Your task to perform on an android device: Go to Android settings Image 0: 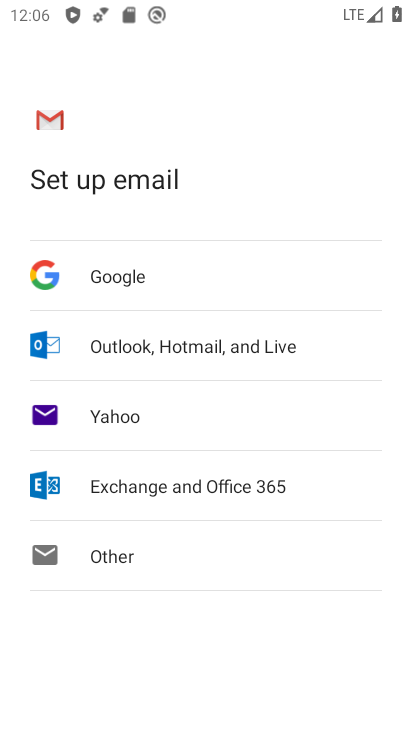
Step 0: drag from (198, 547) to (271, 114)
Your task to perform on an android device: Go to Android settings Image 1: 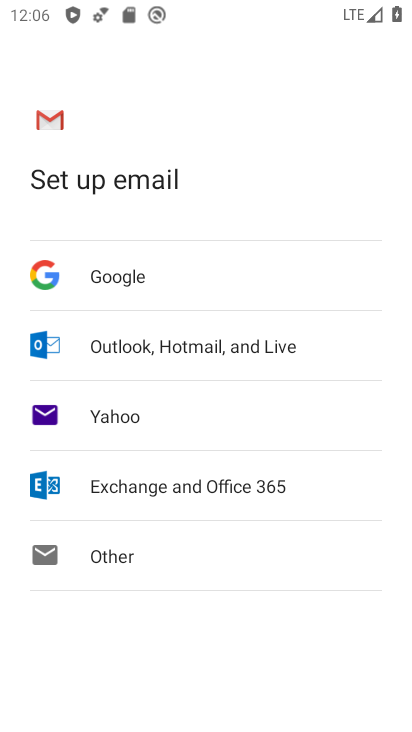
Step 1: press back button
Your task to perform on an android device: Go to Android settings Image 2: 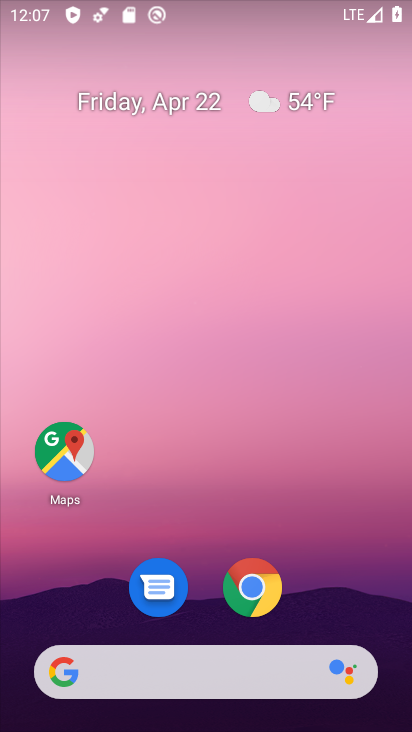
Step 2: drag from (204, 584) to (258, 188)
Your task to perform on an android device: Go to Android settings Image 3: 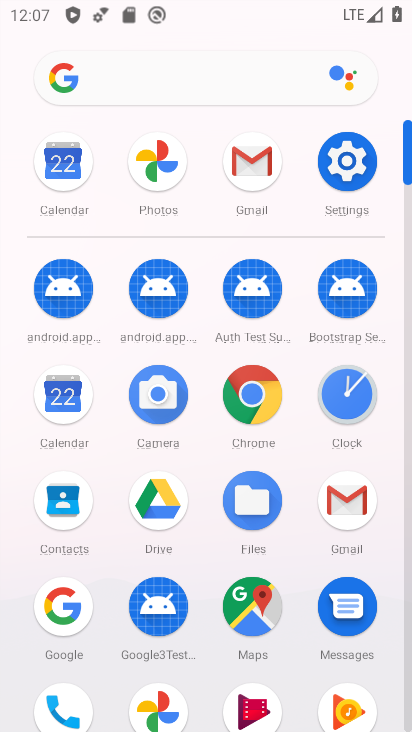
Step 3: click (343, 155)
Your task to perform on an android device: Go to Android settings Image 4: 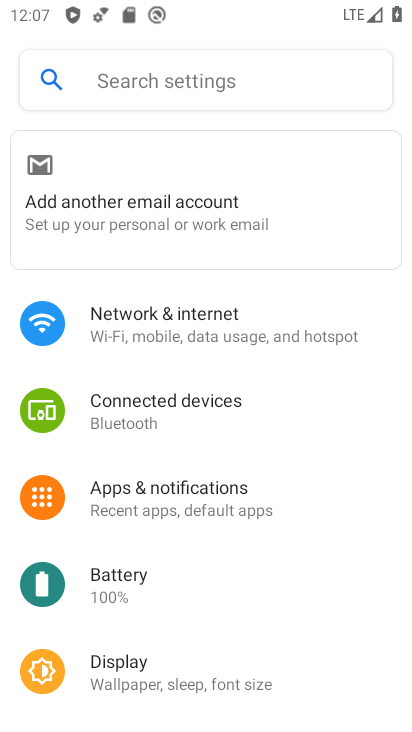
Step 4: drag from (182, 565) to (263, 108)
Your task to perform on an android device: Go to Android settings Image 5: 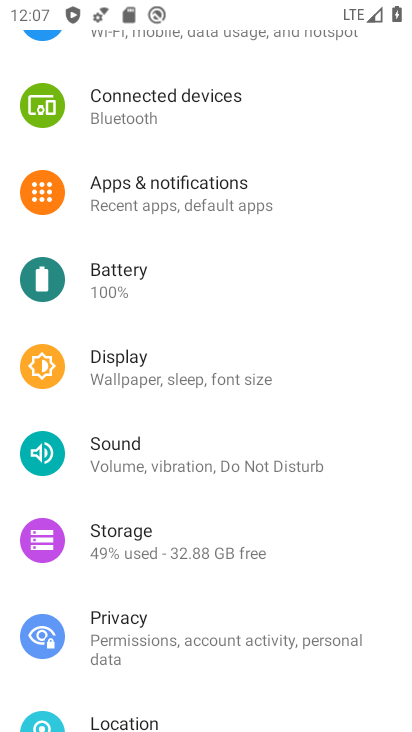
Step 5: drag from (177, 603) to (291, 85)
Your task to perform on an android device: Go to Android settings Image 6: 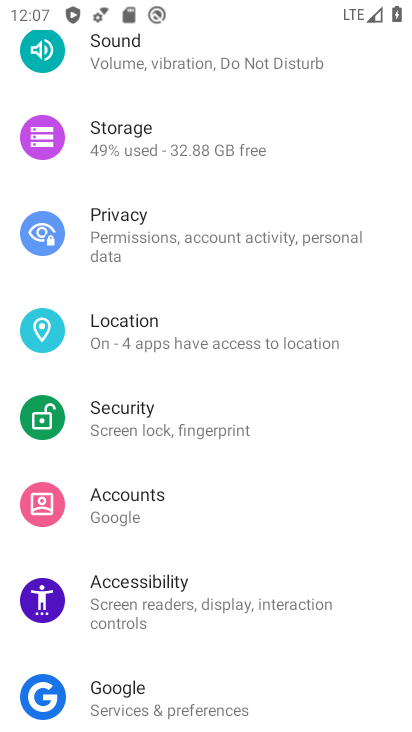
Step 6: drag from (217, 642) to (324, 46)
Your task to perform on an android device: Go to Android settings Image 7: 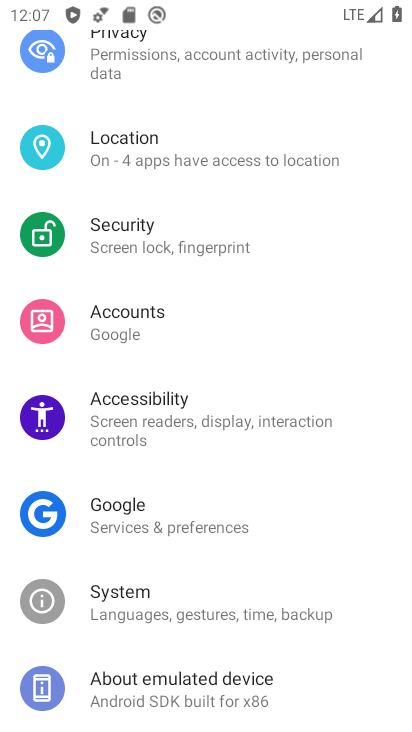
Step 7: click (169, 682)
Your task to perform on an android device: Go to Android settings Image 8: 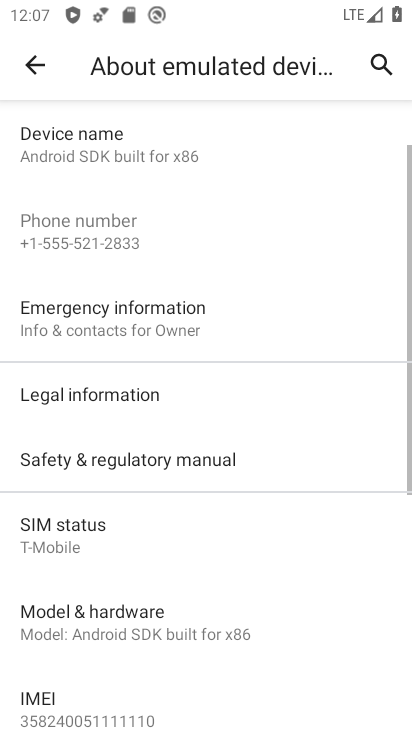
Step 8: drag from (157, 667) to (297, 181)
Your task to perform on an android device: Go to Android settings Image 9: 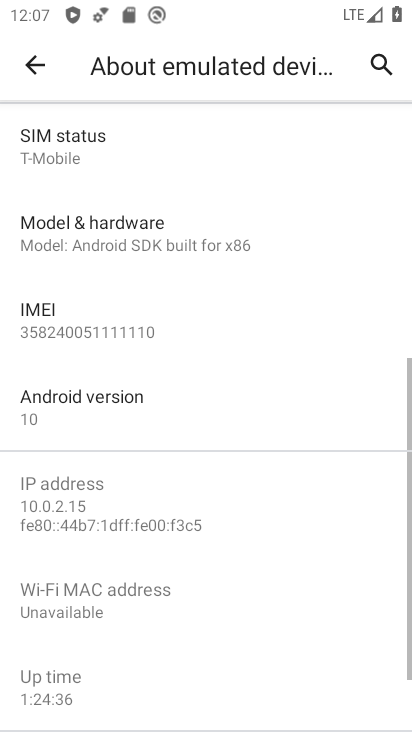
Step 9: click (91, 418)
Your task to perform on an android device: Go to Android settings Image 10: 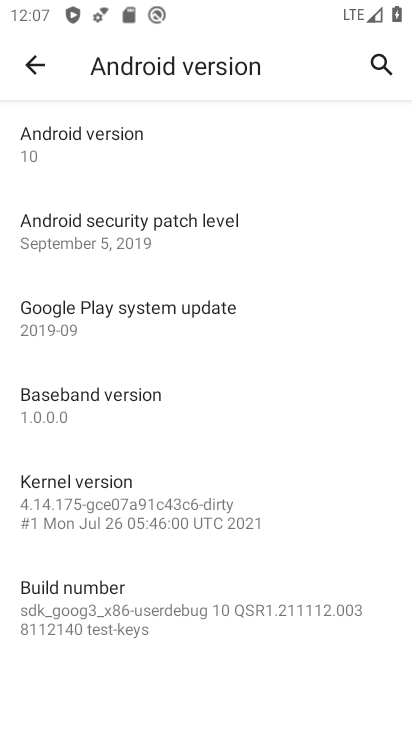
Step 10: task complete